Your task to perform on an android device: Go to settings Image 0: 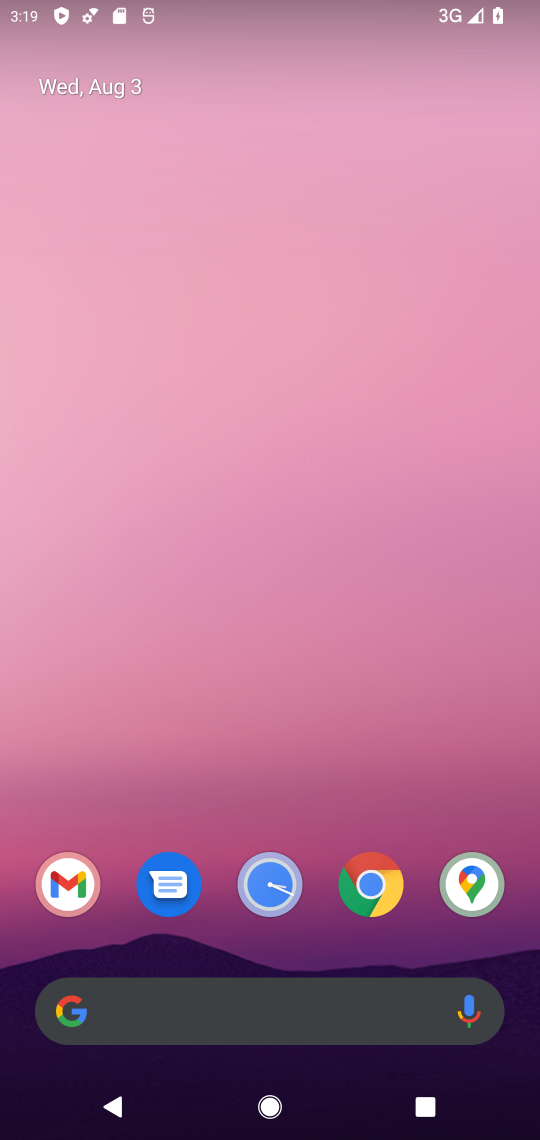
Step 0: drag from (229, 963) to (273, 266)
Your task to perform on an android device: Go to settings Image 1: 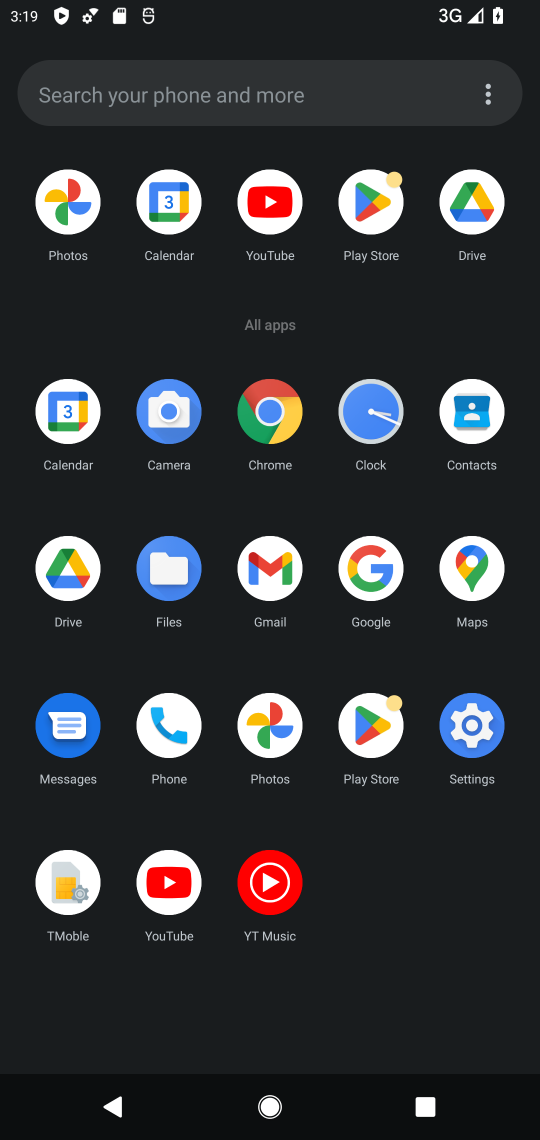
Step 1: click (449, 729)
Your task to perform on an android device: Go to settings Image 2: 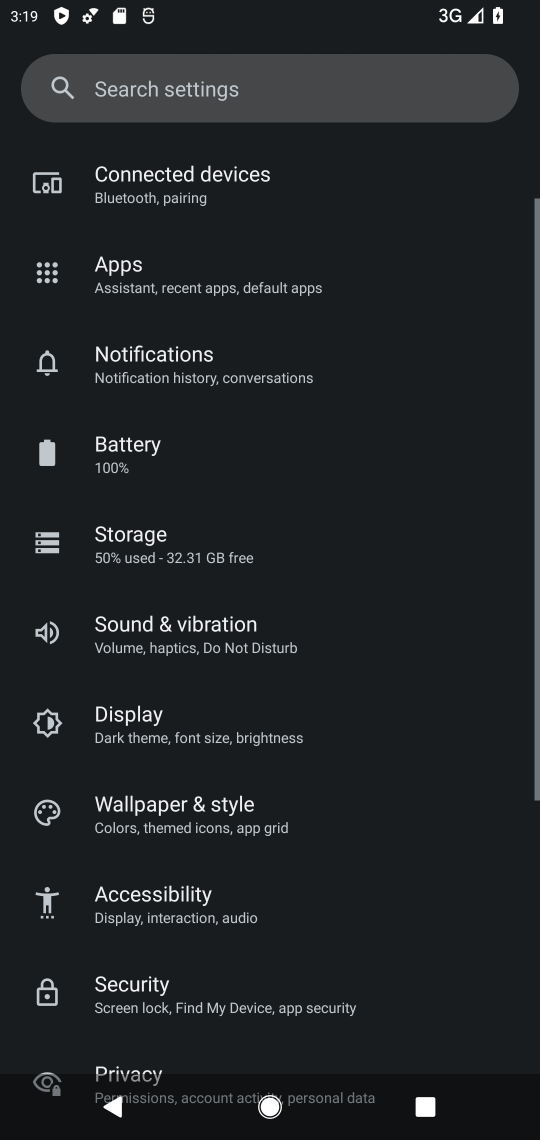
Step 2: task complete